Your task to perform on an android device: Open Amazon Image 0: 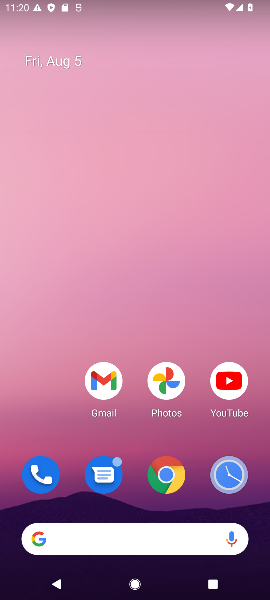
Step 0: click (173, 484)
Your task to perform on an android device: Open Amazon Image 1: 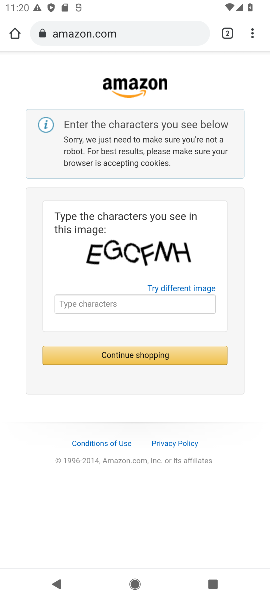
Step 1: click (142, 80)
Your task to perform on an android device: Open Amazon Image 2: 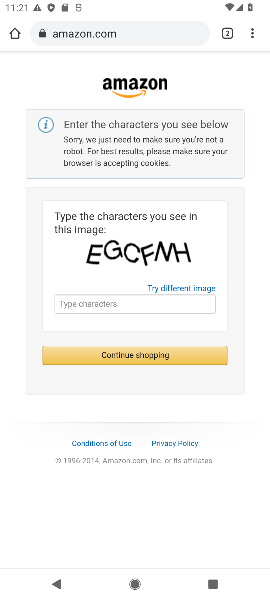
Step 2: click (139, 81)
Your task to perform on an android device: Open Amazon Image 3: 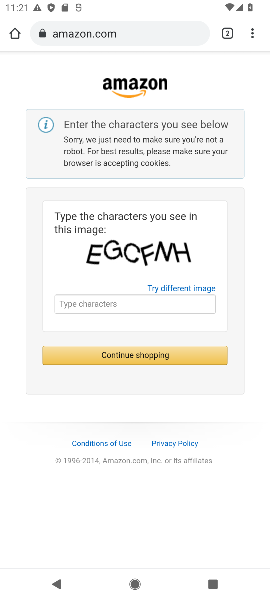
Step 3: click (124, 28)
Your task to perform on an android device: Open Amazon Image 4: 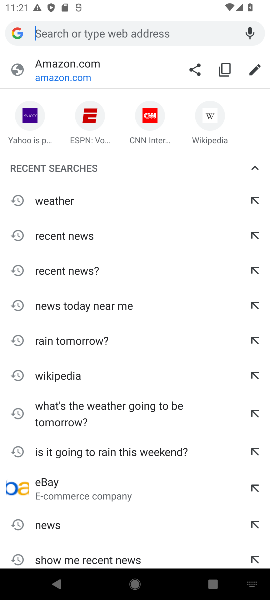
Step 4: type "Amazon"
Your task to perform on an android device: Open Amazon Image 5: 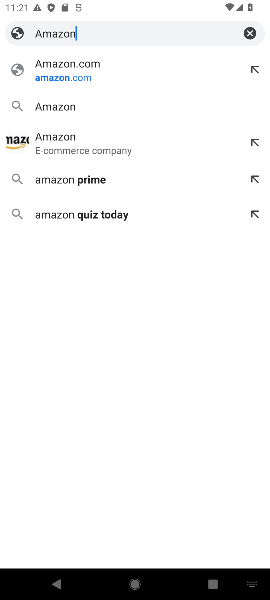
Step 5: click (77, 72)
Your task to perform on an android device: Open Amazon Image 6: 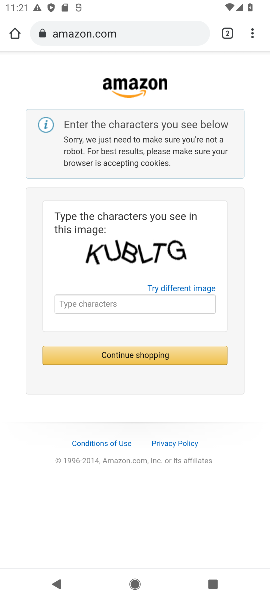
Step 6: task complete